Your task to perform on an android device: Open Yahoo.com Image 0: 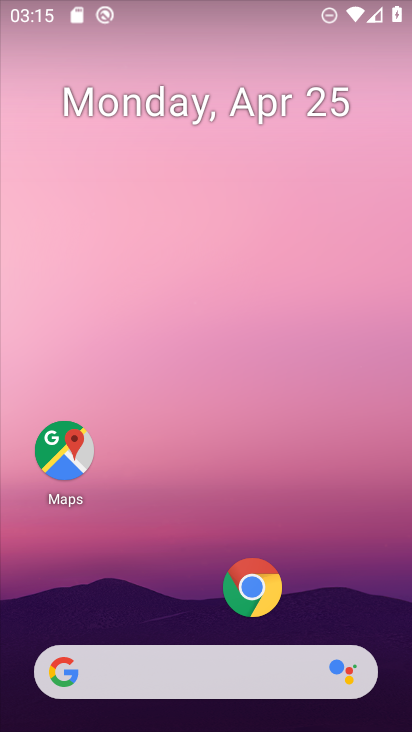
Step 0: drag from (196, 586) to (181, 128)
Your task to perform on an android device: Open Yahoo.com Image 1: 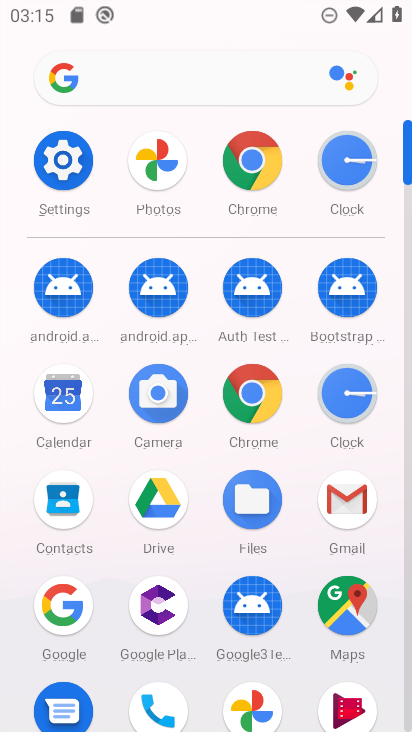
Step 1: click (249, 382)
Your task to perform on an android device: Open Yahoo.com Image 2: 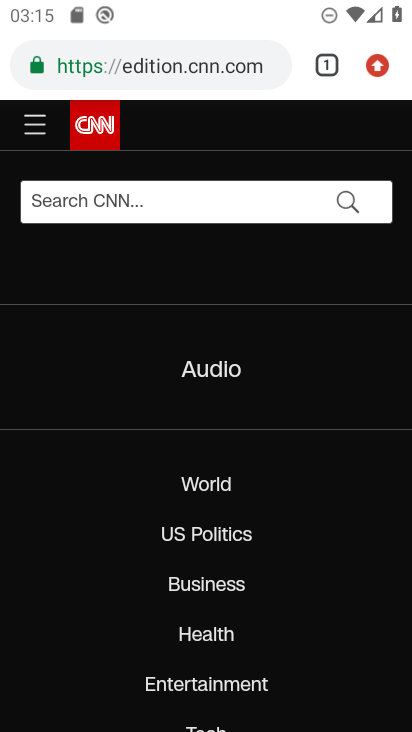
Step 2: click (328, 66)
Your task to perform on an android device: Open Yahoo.com Image 3: 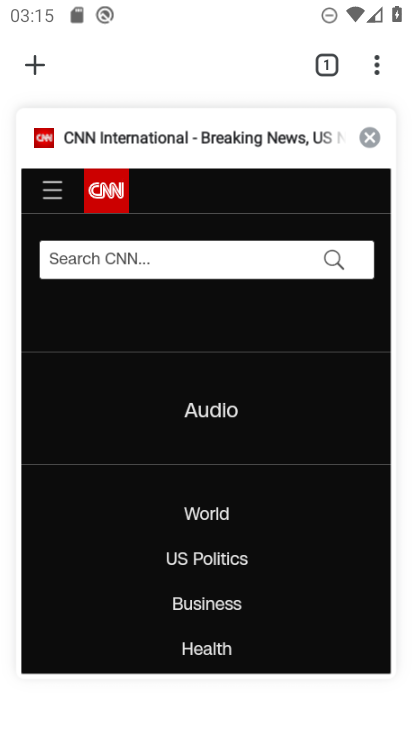
Step 3: click (371, 134)
Your task to perform on an android device: Open Yahoo.com Image 4: 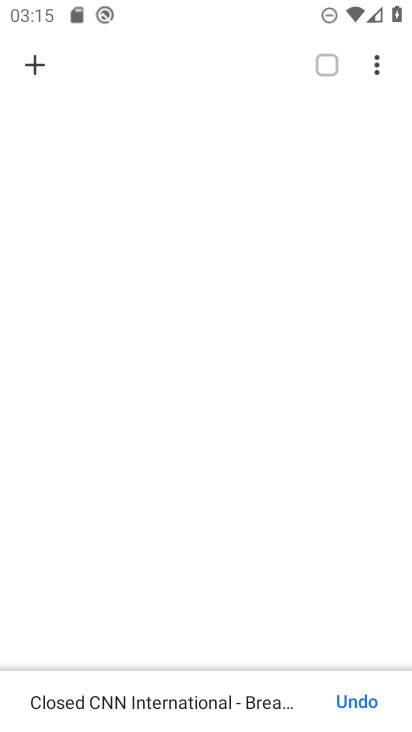
Step 4: click (40, 65)
Your task to perform on an android device: Open Yahoo.com Image 5: 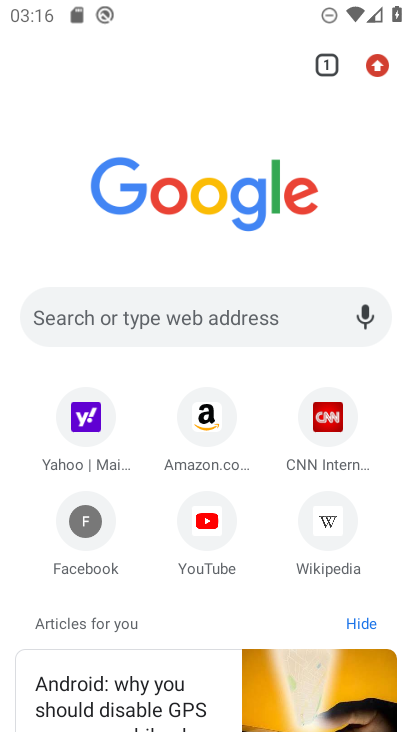
Step 5: click (79, 410)
Your task to perform on an android device: Open Yahoo.com Image 6: 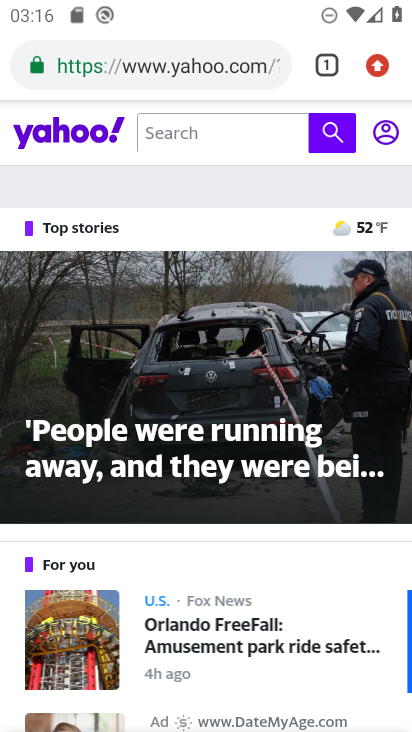
Step 6: drag from (109, 506) to (164, 186)
Your task to perform on an android device: Open Yahoo.com Image 7: 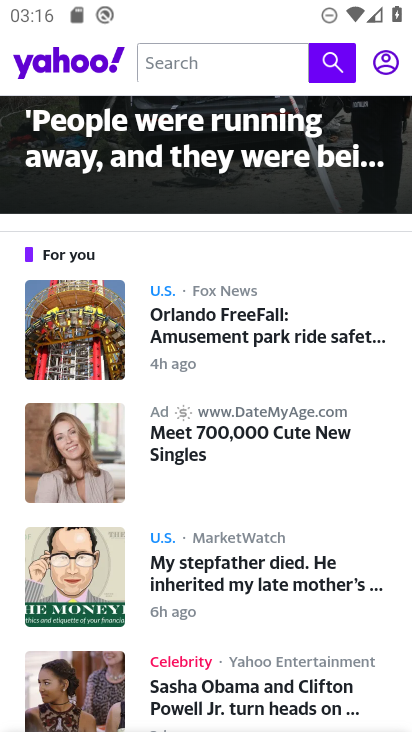
Step 7: click (201, 272)
Your task to perform on an android device: Open Yahoo.com Image 8: 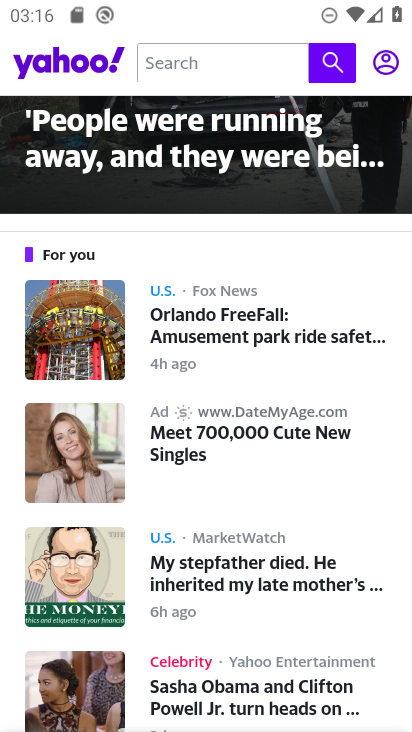
Step 8: task complete